Your task to perform on an android device: find snoozed emails in the gmail app Image 0: 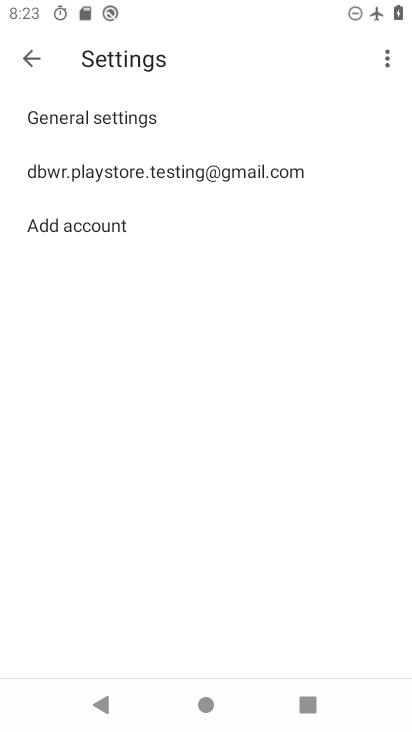
Step 0: click (28, 52)
Your task to perform on an android device: find snoozed emails in the gmail app Image 1: 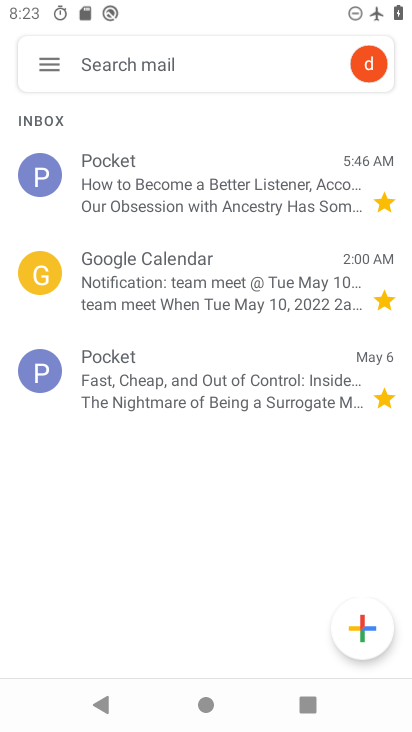
Step 1: click (48, 58)
Your task to perform on an android device: find snoozed emails in the gmail app Image 2: 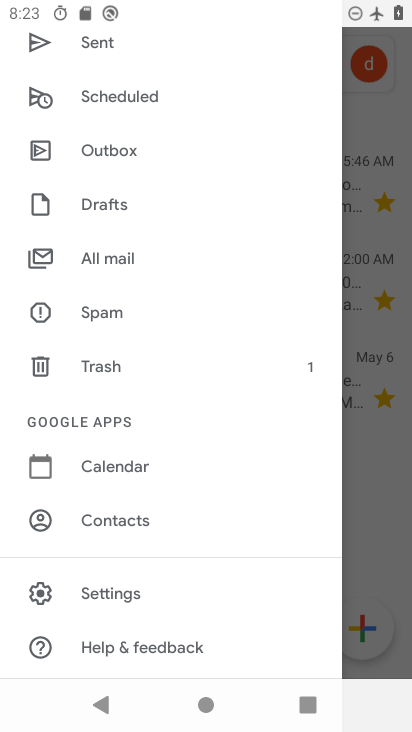
Step 2: drag from (204, 182) to (236, 563)
Your task to perform on an android device: find snoozed emails in the gmail app Image 3: 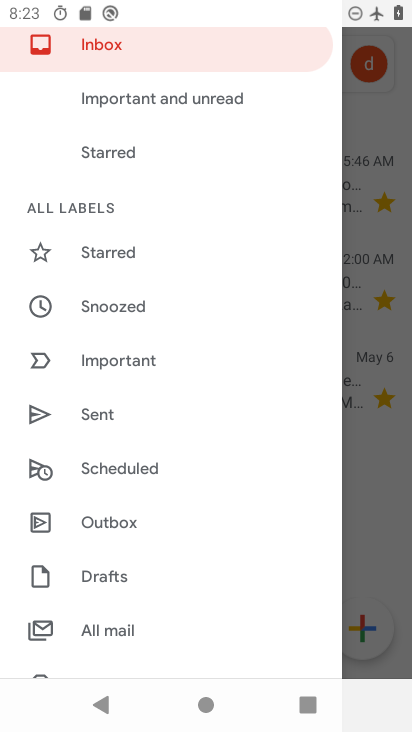
Step 3: click (141, 293)
Your task to perform on an android device: find snoozed emails in the gmail app Image 4: 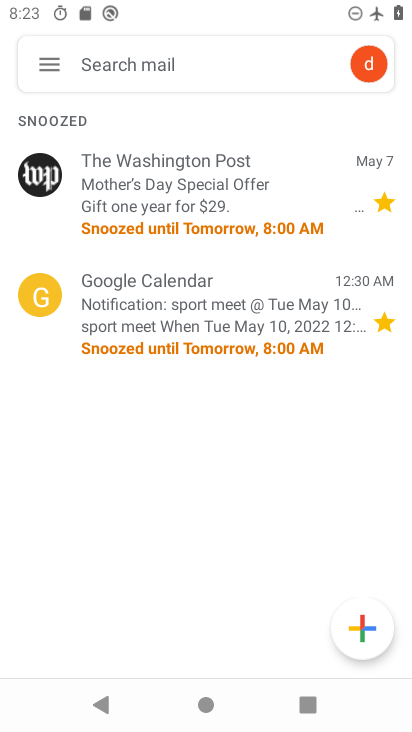
Step 4: task complete